Your task to perform on an android device: Open Chrome and go to settings Image 0: 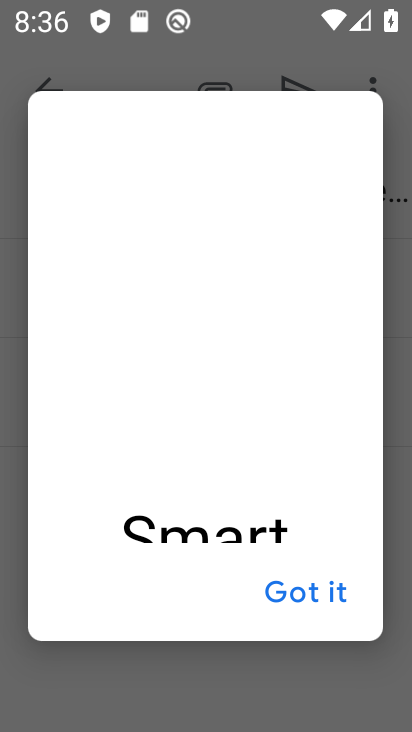
Step 0: press home button
Your task to perform on an android device: Open Chrome and go to settings Image 1: 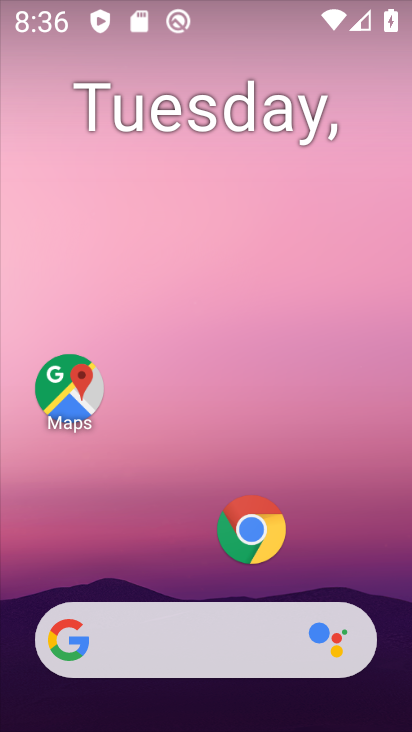
Step 1: click (248, 525)
Your task to perform on an android device: Open Chrome and go to settings Image 2: 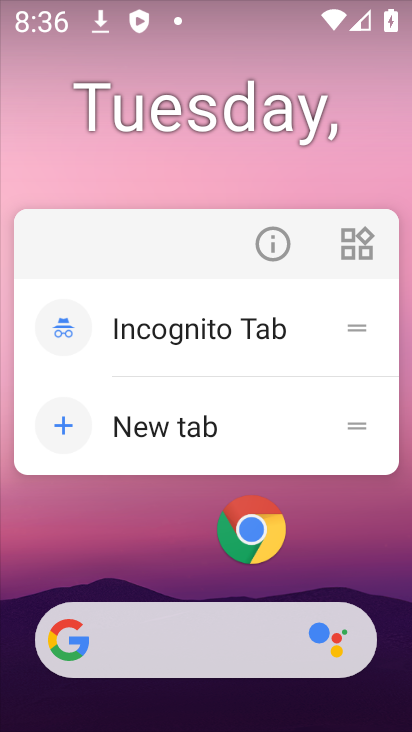
Step 2: click (244, 512)
Your task to perform on an android device: Open Chrome and go to settings Image 3: 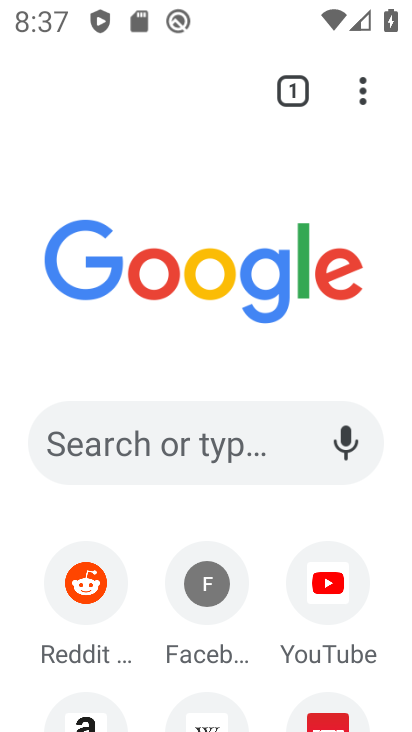
Step 3: click (357, 88)
Your task to perform on an android device: Open Chrome and go to settings Image 4: 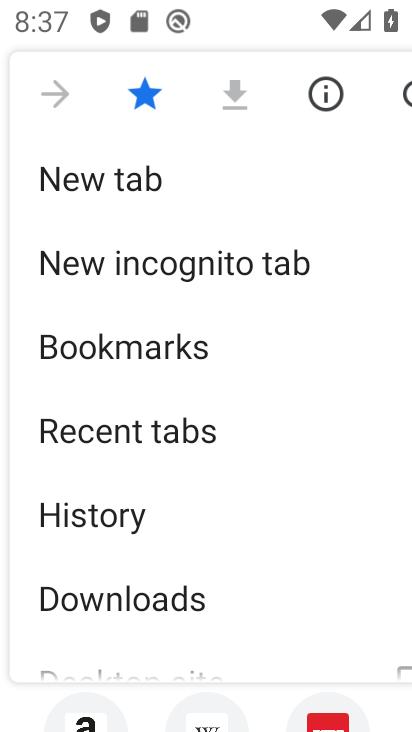
Step 4: drag from (217, 633) to (205, 95)
Your task to perform on an android device: Open Chrome and go to settings Image 5: 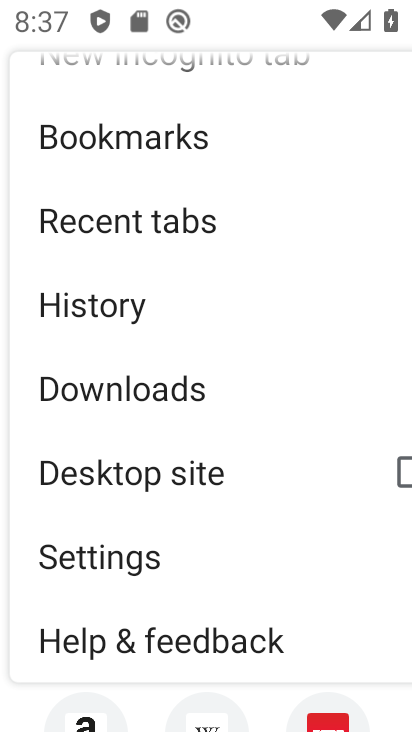
Step 5: click (171, 552)
Your task to perform on an android device: Open Chrome and go to settings Image 6: 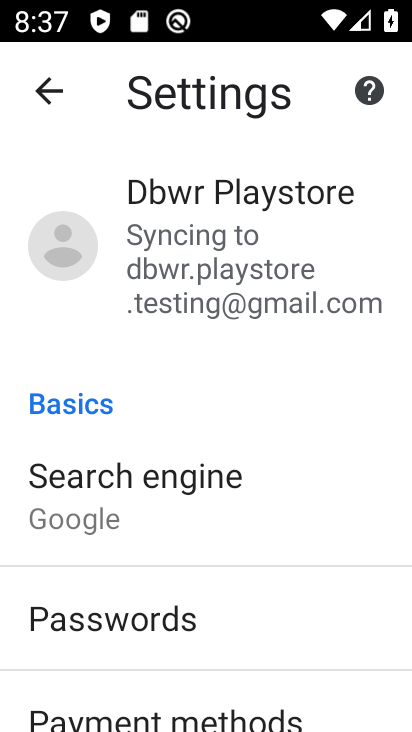
Step 6: task complete